Your task to perform on an android device: Go to privacy settings Image 0: 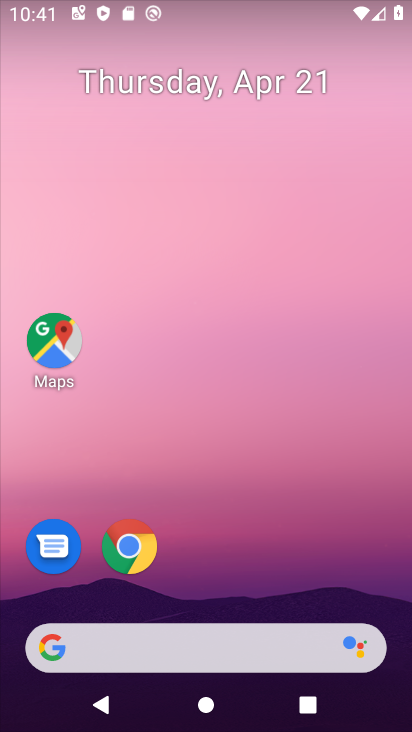
Step 0: drag from (280, 578) to (218, 89)
Your task to perform on an android device: Go to privacy settings Image 1: 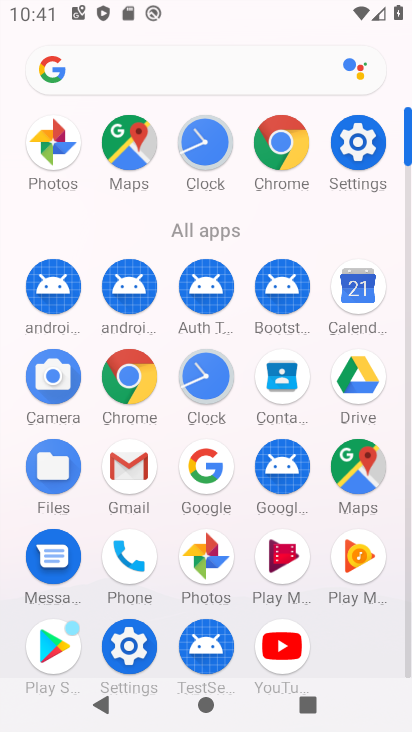
Step 1: click (129, 647)
Your task to perform on an android device: Go to privacy settings Image 2: 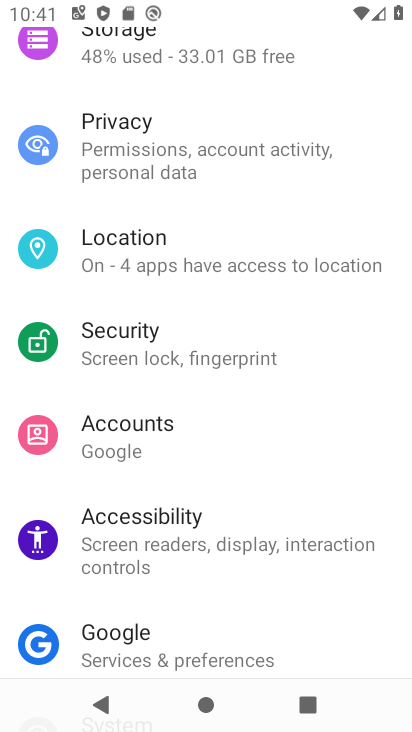
Step 2: drag from (197, 597) to (238, 151)
Your task to perform on an android device: Go to privacy settings Image 3: 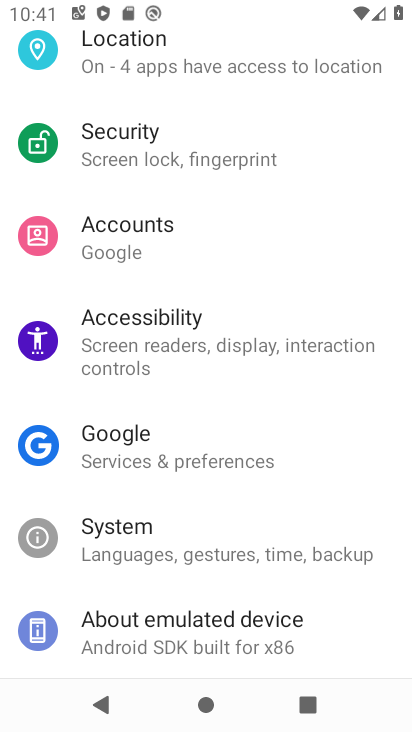
Step 3: drag from (234, 160) to (209, 614)
Your task to perform on an android device: Go to privacy settings Image 4: 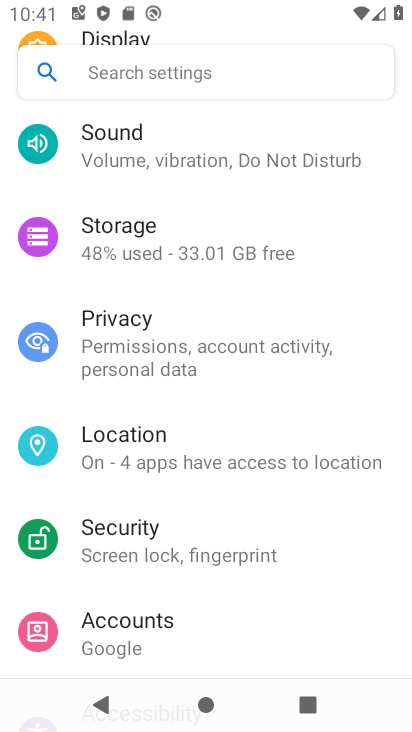
Step 4: click (182, 338)
Your task to perform on an android device: Go to privacy settings Image 5: 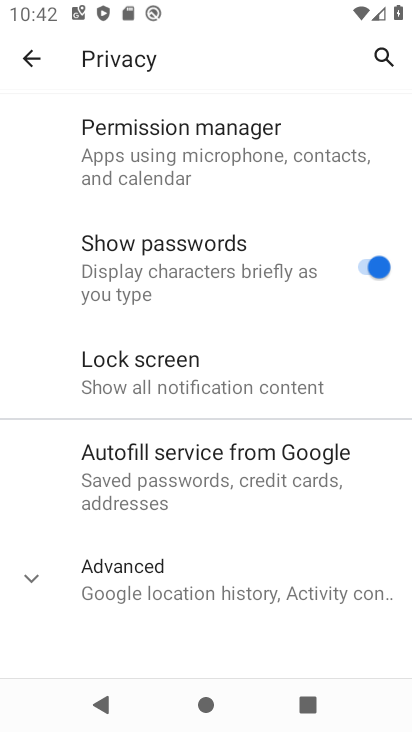
Step 5: task complete